Your task to perform on an android device: turn off priority inbox in the gmail app Image 0: 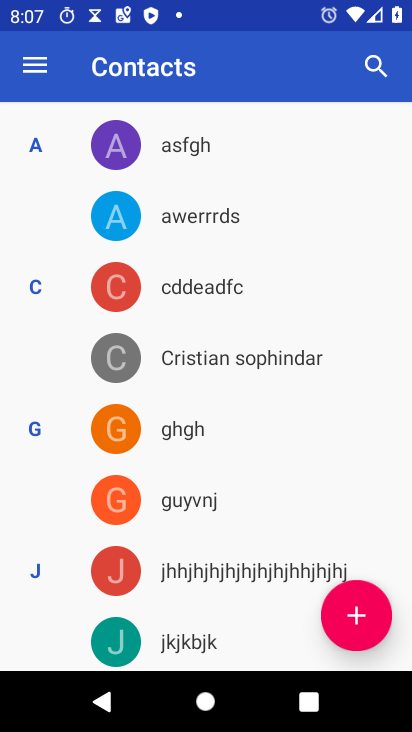
Step 0: press home button
Your task to perform on an android device: turn off priority inbox in the gmail app Image 1: 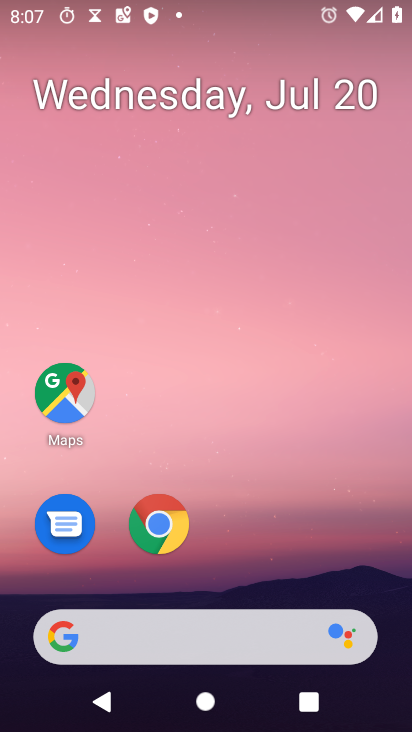
Step 1: drag from (187, 621) to (262, 55)
Your task to perform on an android device: turn off priority inbox in the gmail app Image 2: 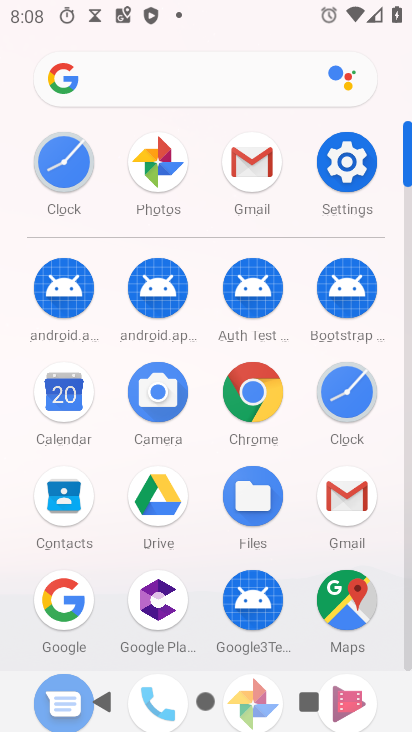
Step 2: click (253, 169)
Your task to perform on an android device: turn off priority inbox in the gmail app Image 3: 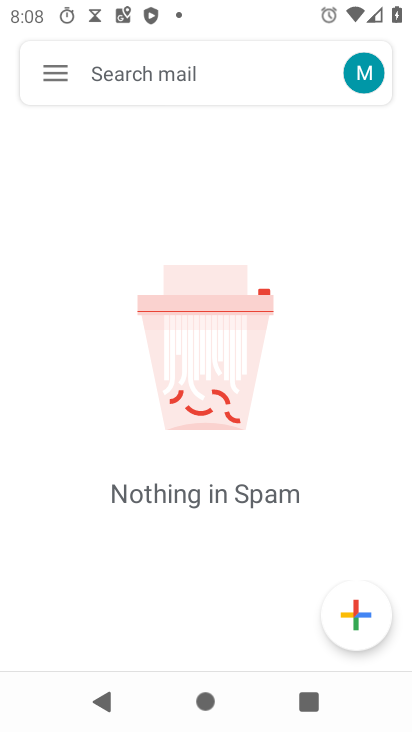
Step 3: click (51, 78)
Your task to perform on an android device: turn off priority inbox in the gmail app Image 4: 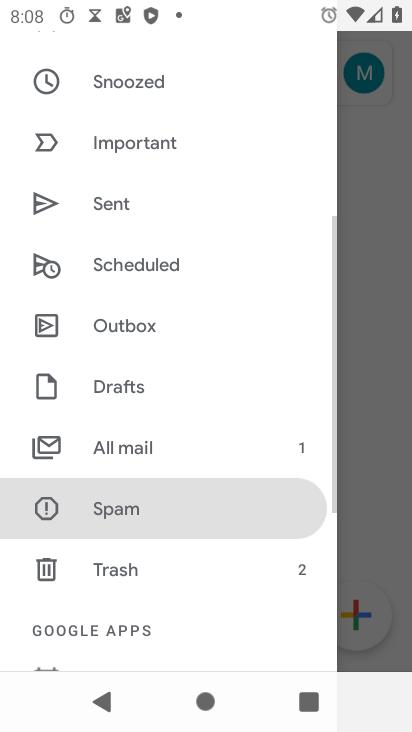
Step 4: drag from (153, 579) to (272, 4)
Your task to perform on an android device: turn off priority inbox in the gmail app Image 5: 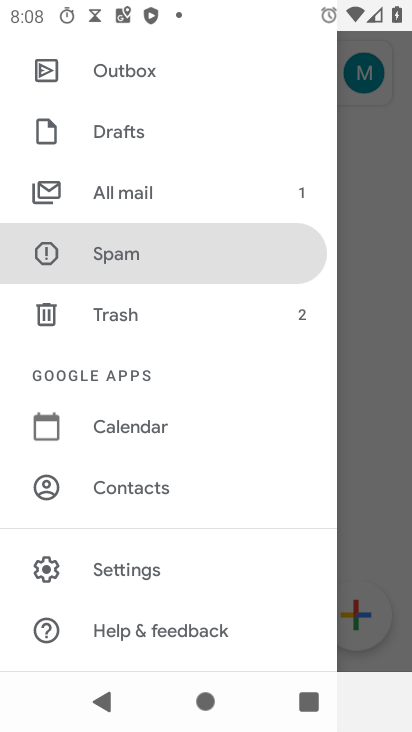
Step 5: click (116, 576)
Your task to perform on an android device: turn off priority inbox in the gmail app Image 6: 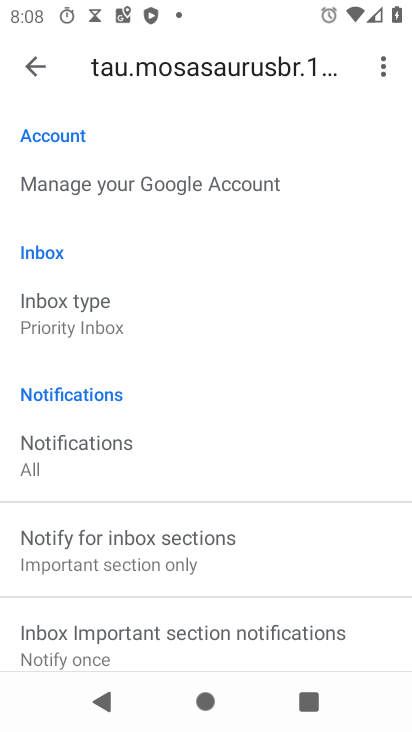
Step 6: click (84, 301)
Your task to perform on an android device: turn off priority inbox in the gmail app Image 7: 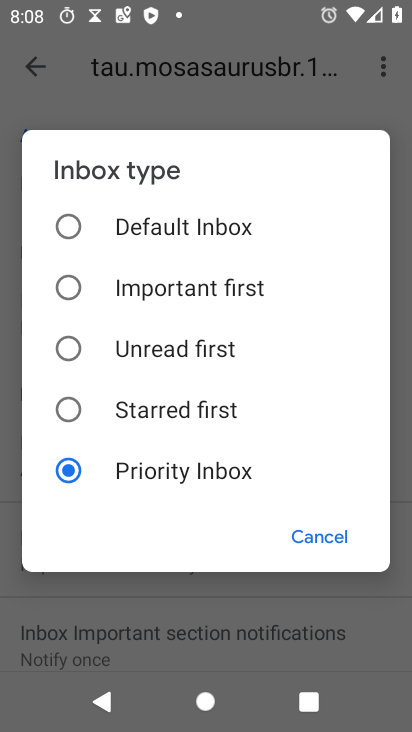
Step 7: click (65, 226)
Your task to perform on an android device: turn off priority inbox in the gmail app Image 8: 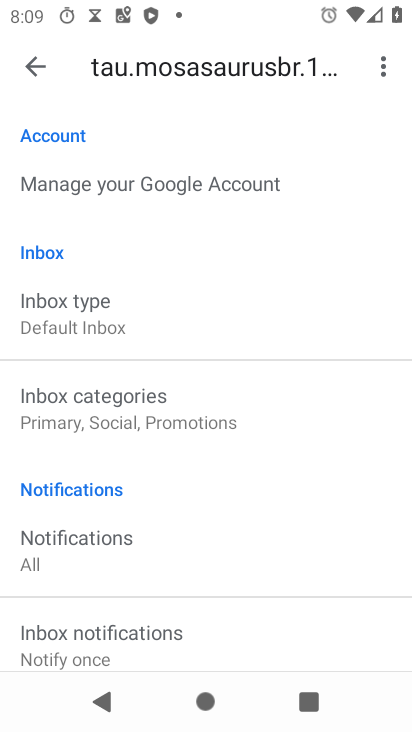
Step 8: task complete